Your task to perform on an android device: Open Google Image 0: 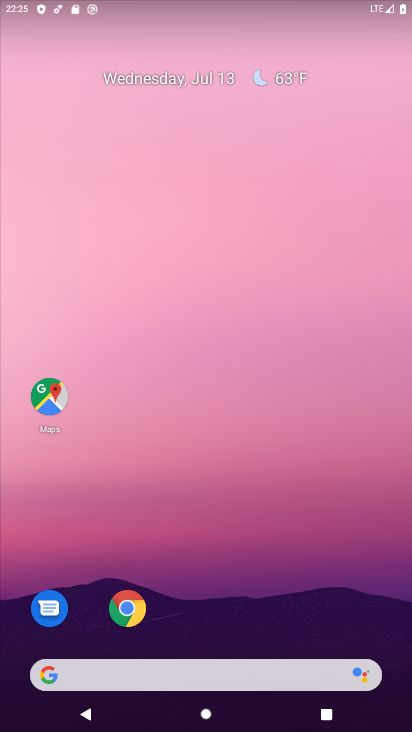
Step 0: click (153, 676)
Your task to perform on an android device: Open Google Image 1: 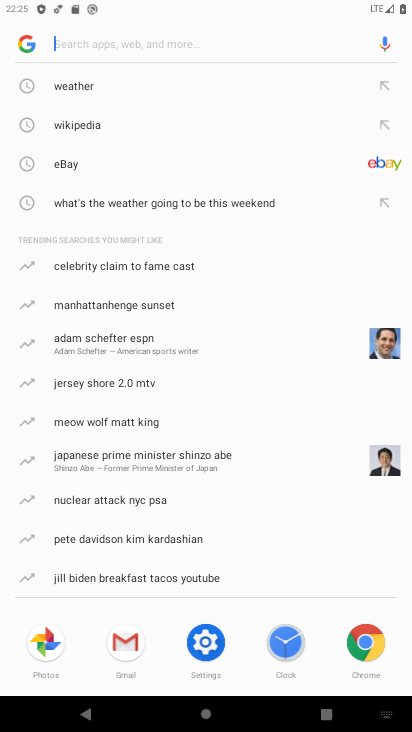
Step 1: click (16, 37)
Your task to perform on an android device: Open Google Image 2: 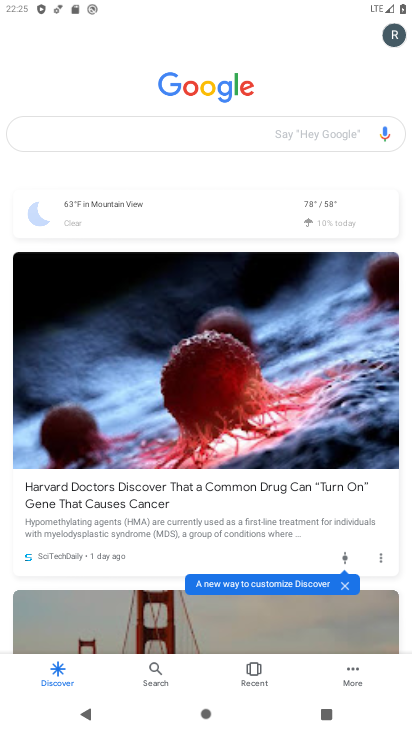
Step 2: task complete